Your task to perform on an android device: empty trash in google photos Image 0: 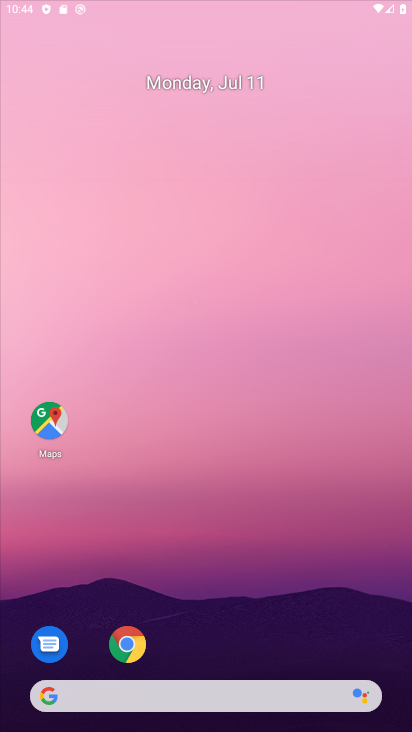
Step 0: drag from (257, 681) to (320, 4)
Your task to perform on an android device: empty trash in google photos Image 1: 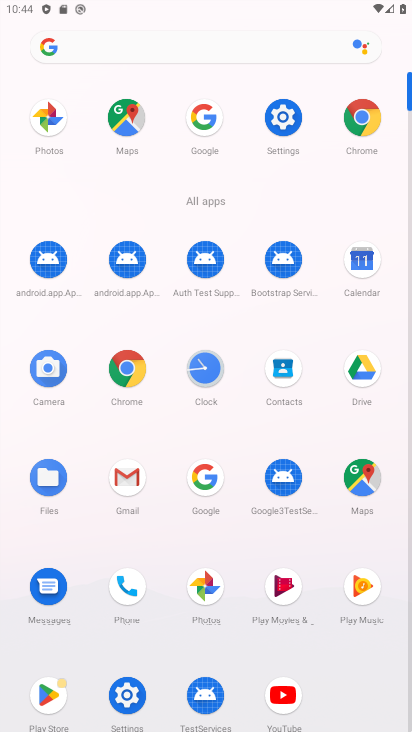
Step 1: click (42, 109)
Your task to perform on an android device: empty trash in google photos Image 2: 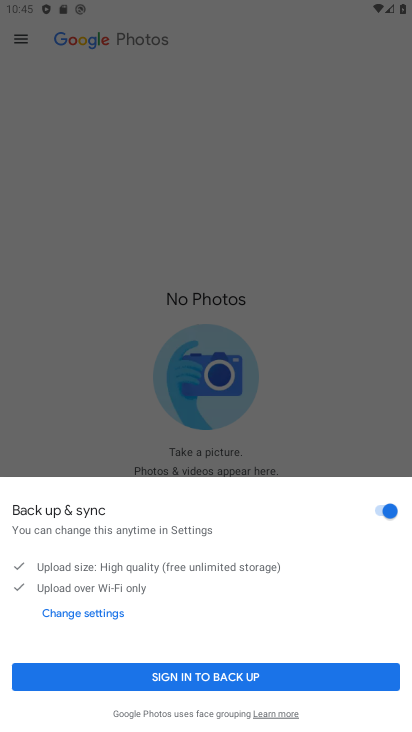
Step 2: click (245, 669)
Your task to perform on an android device: empty trash in google photos Image 3: 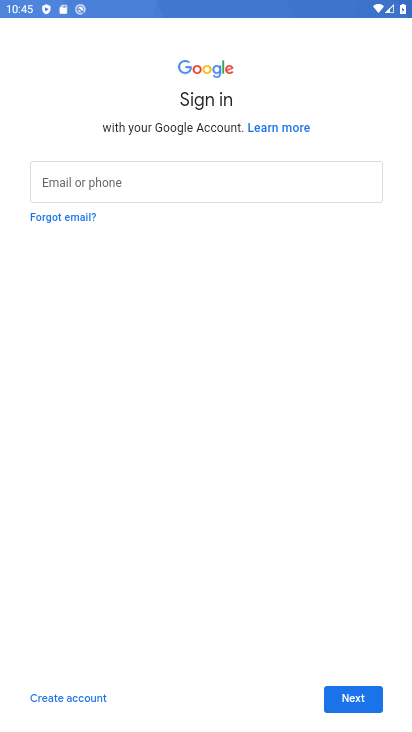
Step 3: click (380, 694)
Your task to perform on an android device: empty trash in google photos Image 4: 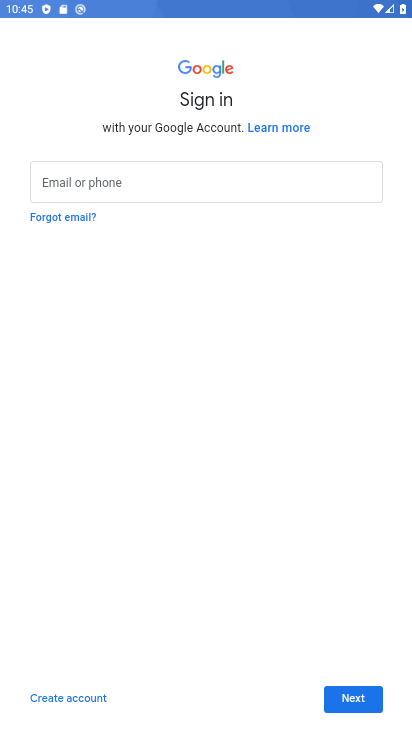
Step 4: click (370, 686)
Your task to perform on an android device: empty trash in google photos Image 5: 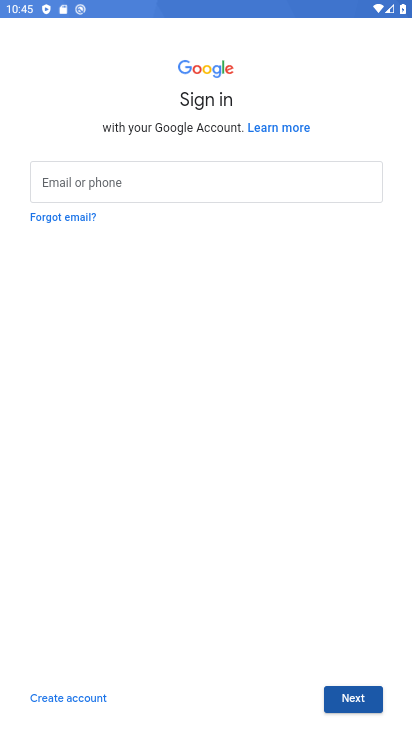
Step 5: click (355, 700)
Your task to perform on an android device: empty trash in google photos Image 6: 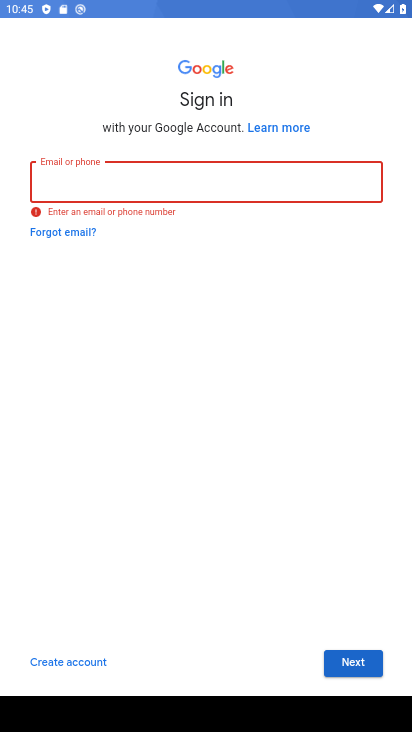
Step 6: press back button
Your task to perform on an android device: empty trash in google photos Image 7: 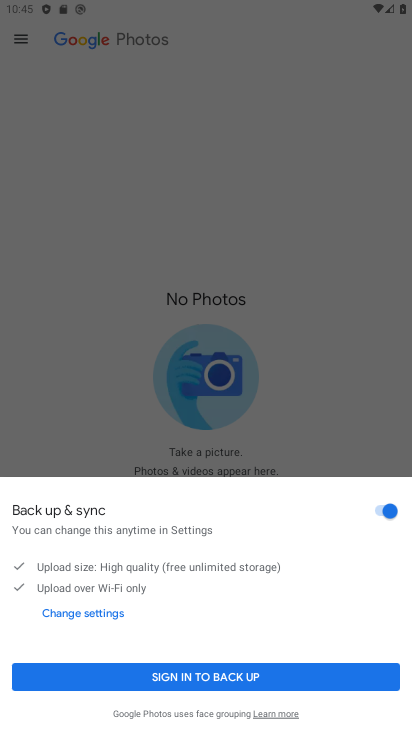
Step 7: press back button
Your task to perform on an android device: empty trash in google photos Image 8: 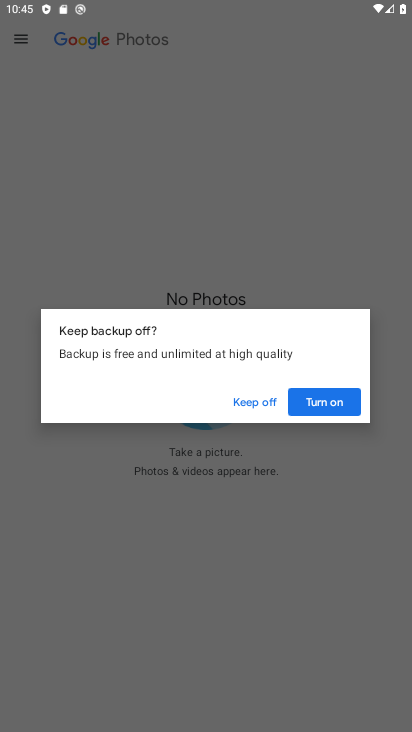
Step 8: click (265, 398)
Your task to perform on an android device: empty trash in google photos Image 9: 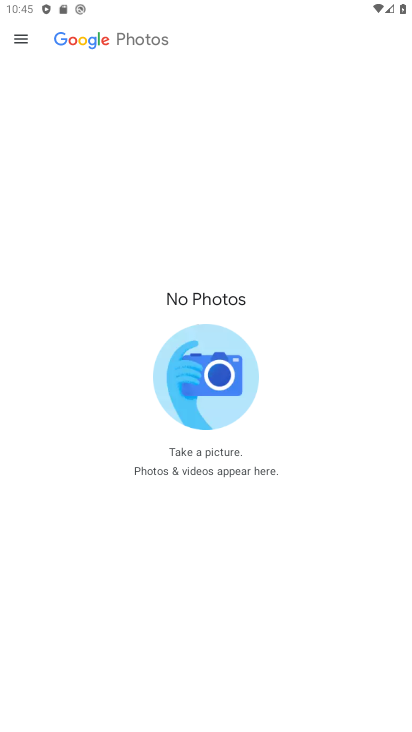
Step 9: click (20, 45)
Your task to perform on an android device: empty trash in google photos Image 10: 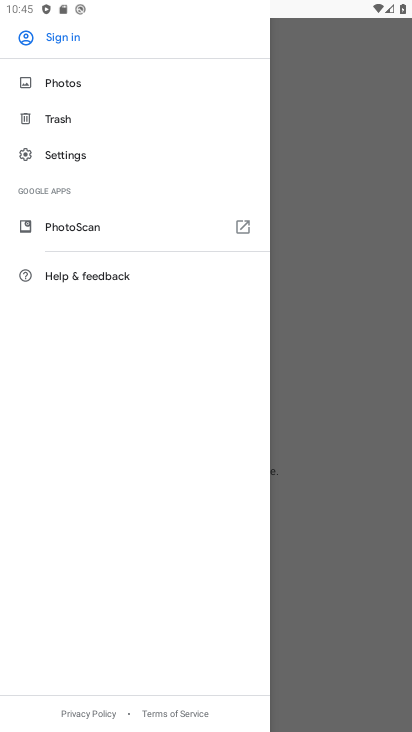
Step 10: click (54, 106)
Your task to perform on an android device: empty trash in google photos Image 11: 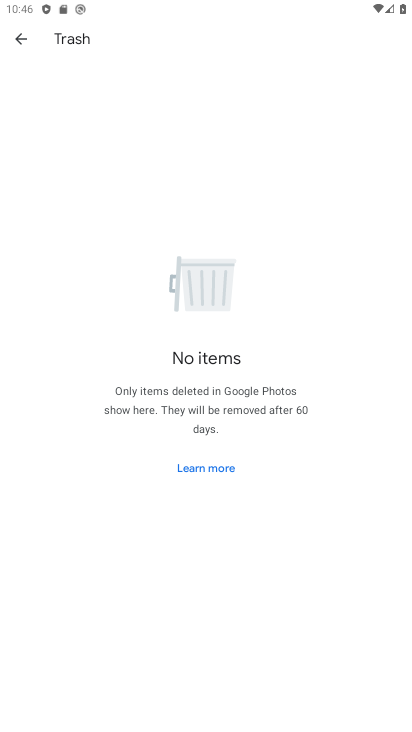
Step 11: task complete